Your task to perform on an android device: turn off javascript in the chrome app Image 0: 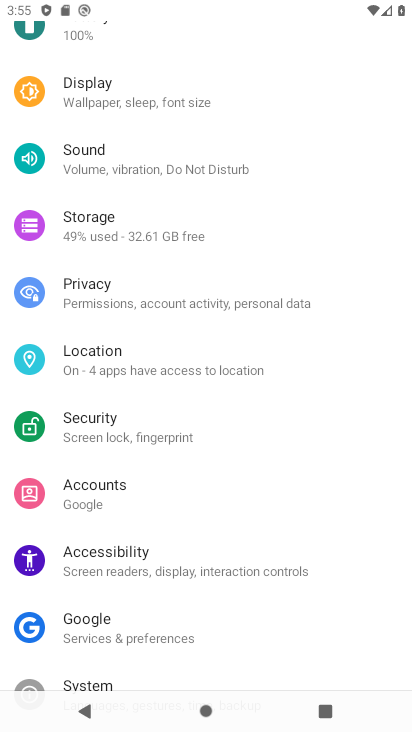
Step 0: press home button
Your task to perform on an android device: turn off javascript in the chrome app Image 1: 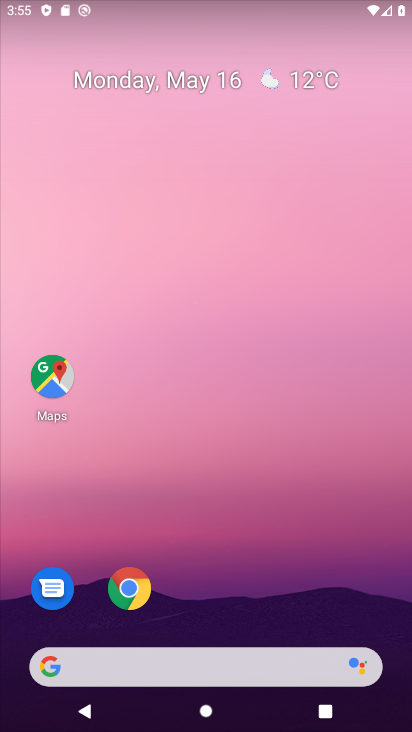
Step 1: click (130, 584)
Your task to perform on an android device: turn off javascript in the chrome app Image 2: 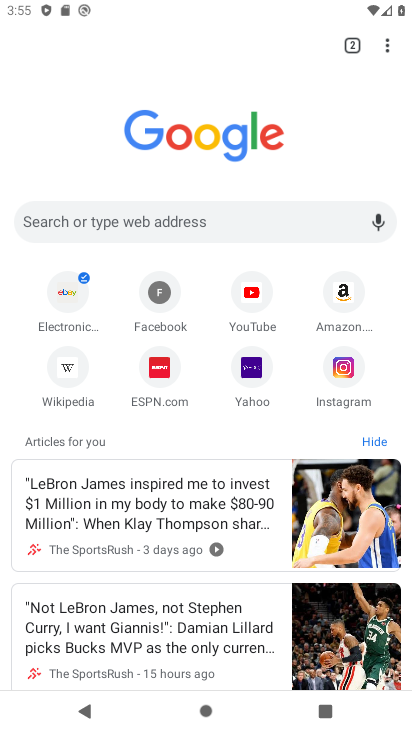
Step 2: click (387, 41)
Your task to perform on an android device: turn off javascript in the chrome app Image 3: 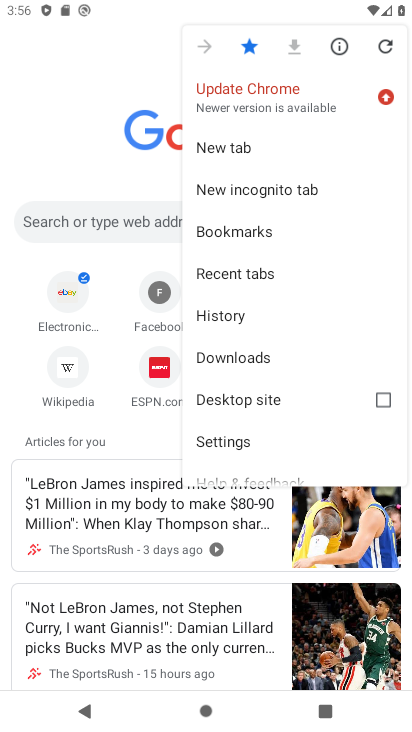
Step 3: click (244, 448)
Your task to perform on an android device: turn off javascript in the chrome app Image 4: 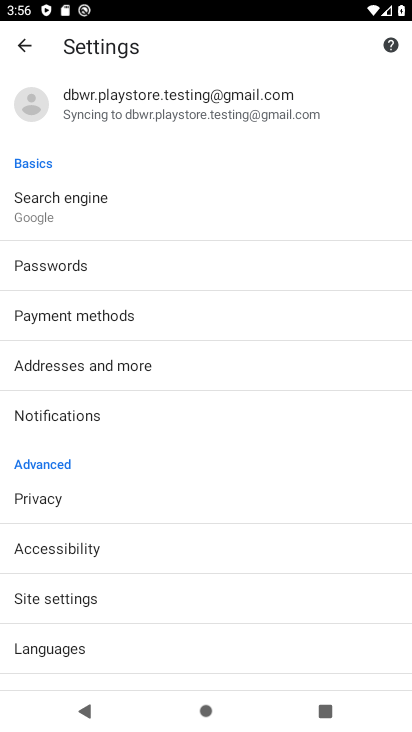
Step 4: click (182, 592)
Your task to perform on an android device: turn off javascript in the chrome app Image 5: 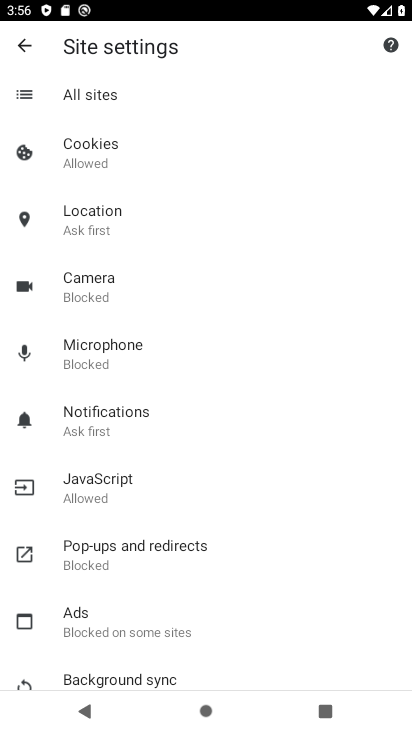
Step 5: drag from (255, 566) to (225, 133)
Your task to perform on an android device: turn off javascript in the chrome app Image 6: 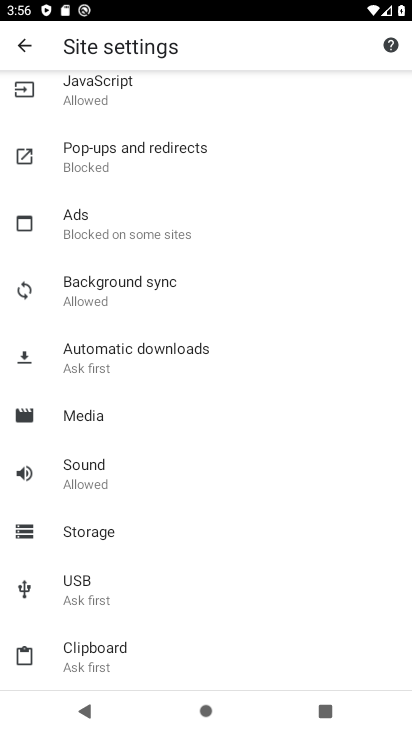
Step 6: click (171, 87)
Your task to perform on an android device: turn off javascript in the chrome app Image 7: 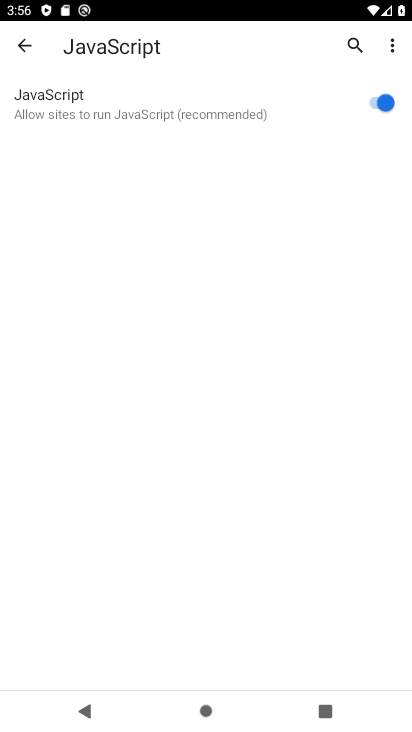
Step 7: click (380, 105)
Your task to perform on an android device: turn off javascript in the chrome app Image 8: 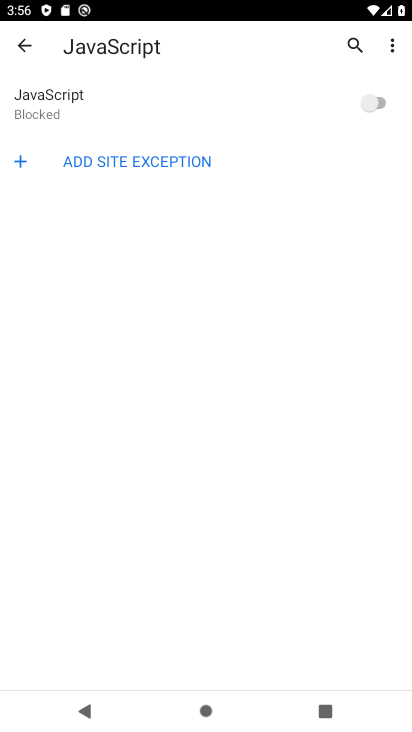
Step 8: task complete